Your task to perform on an android device: Show me recent news Image 0: 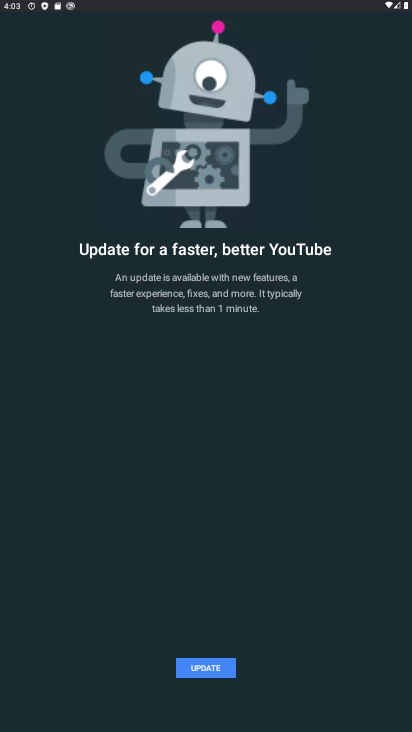
Step 0: press home button
Your task to perform on an android device: Show me recent news Image 1: 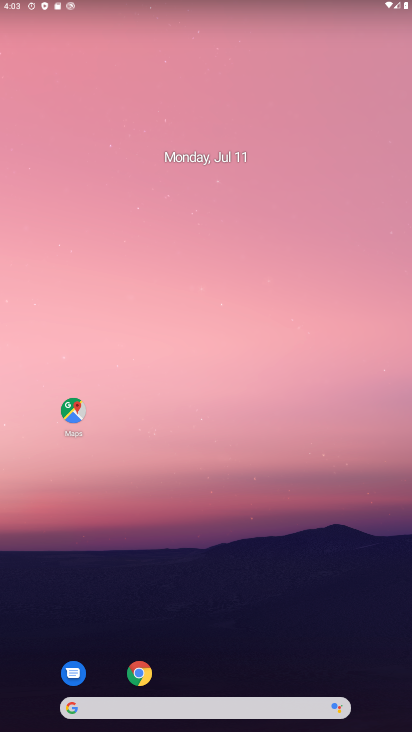
Step 1: drag from (295, 598) to (208, 25)
Your task to perform on an android device: Show me recent news Image 2: 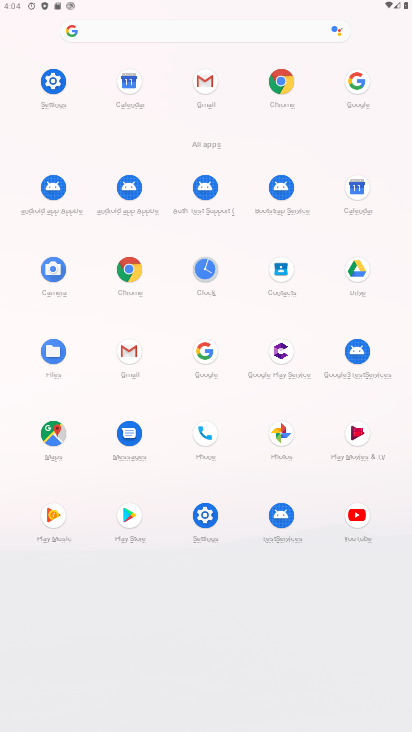
Step 2: click (122, 269)
Your task to perform on an android device: Show me recent news Image 3: 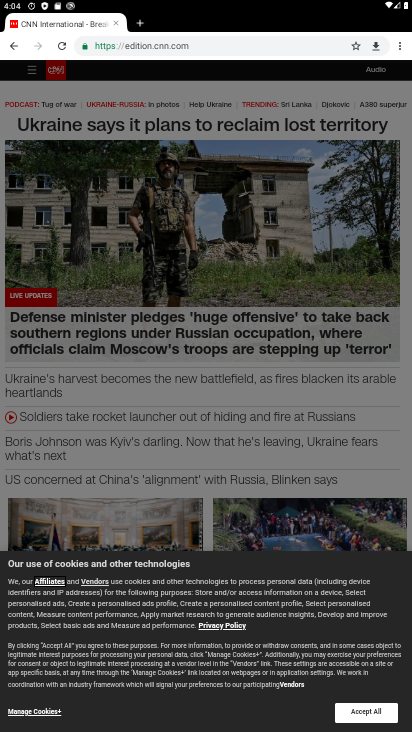
Step 3: click (175, 39)
Your task to perform on an android device: Show me recent news Image 4: 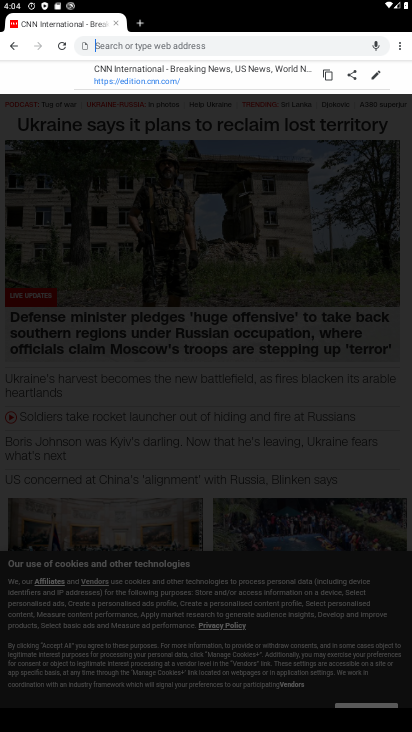
Step 4: type "recent news"
Your task to perform on an android device: Show me recent news Image 5: 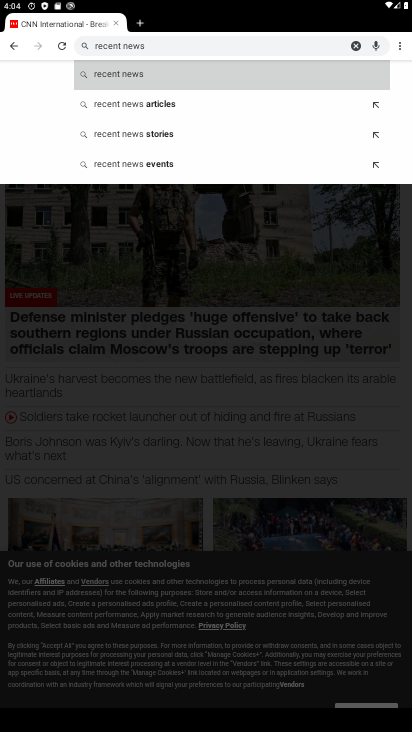
Step 5: click (115, 72)
Your task to perform on an android device: Show me recent news Image 6: 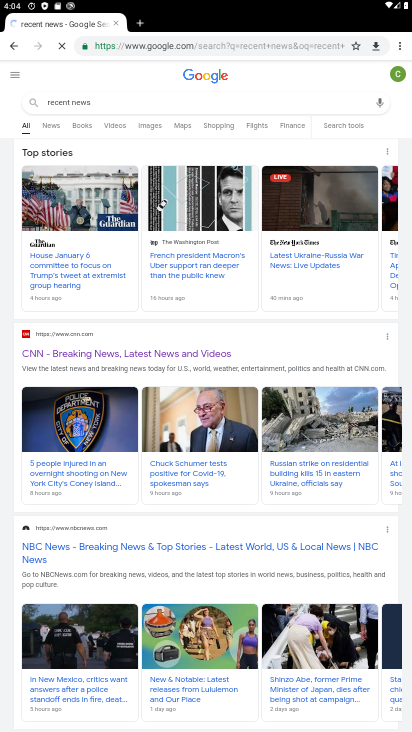
Step 6: click (53, 122)
Your task to perform on an android device: Show me recent news Image 7: 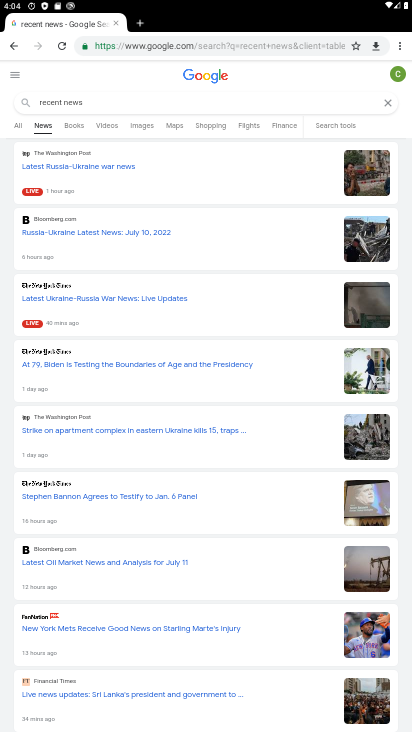
Step 7: task complete